Your task to perform on an android device: Add logitech g pro to the cart on bestbuy Image 0: 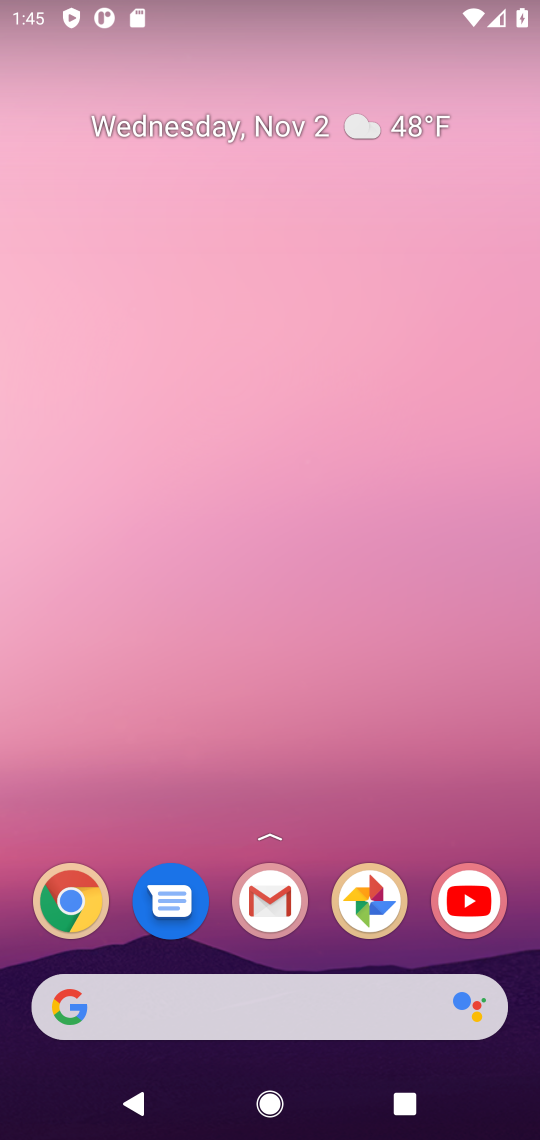
Step 0: drag from (336, 911) to (352, 132)
Your task to perform on an android device: Add logitech g pro to the cart on bestbuy Image 1: 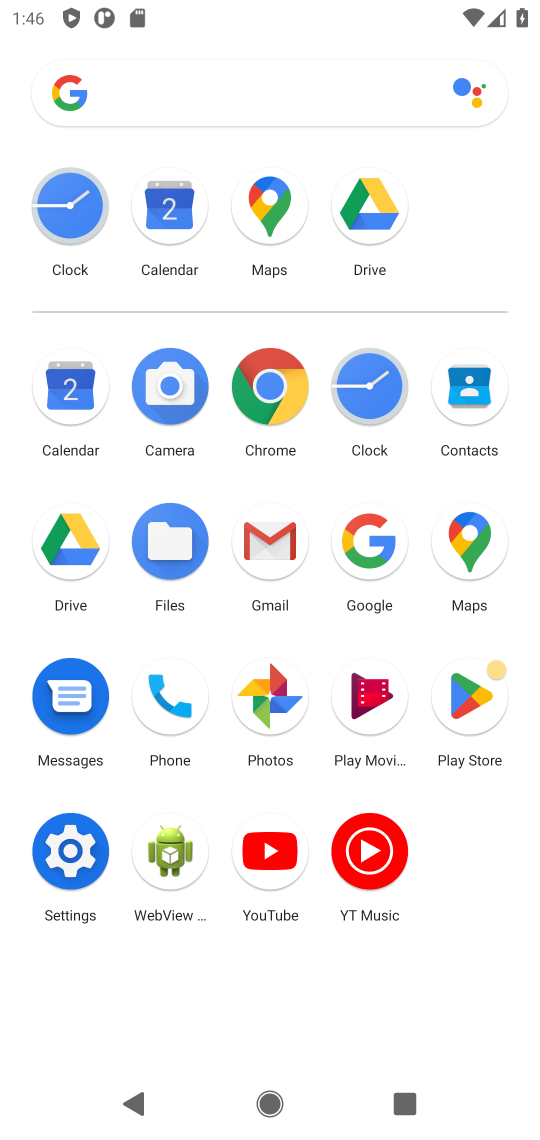
Step 1: click (267, 391)
Your task to perform on an android device: Add logitech g pro to the cart on bestbuy Image 2: 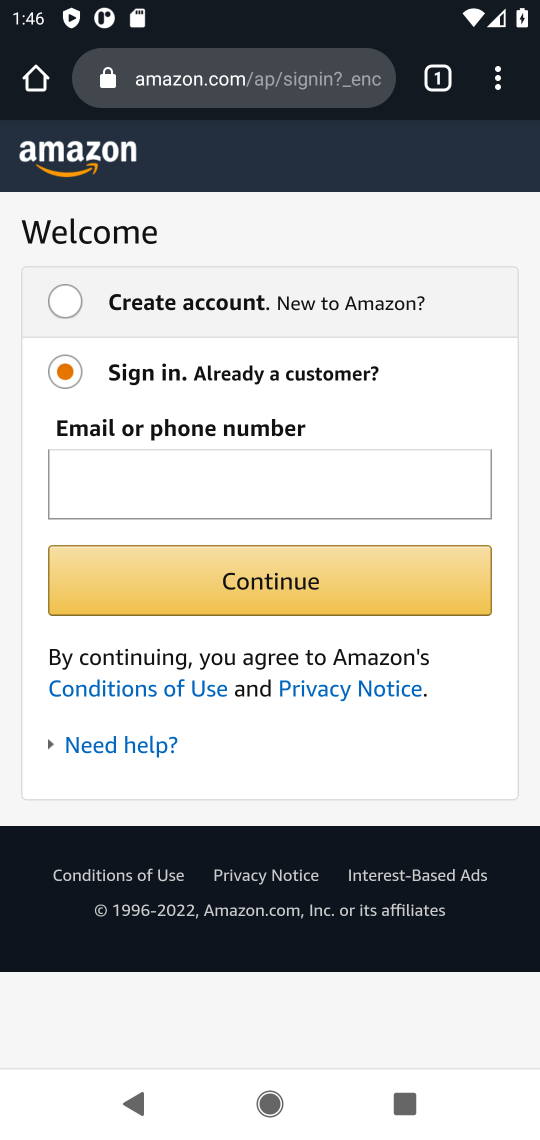
Step 2: click (284, 88)
Your task to perform on an android device: Add logitech g pro to the cart on bestbuy Image 3: 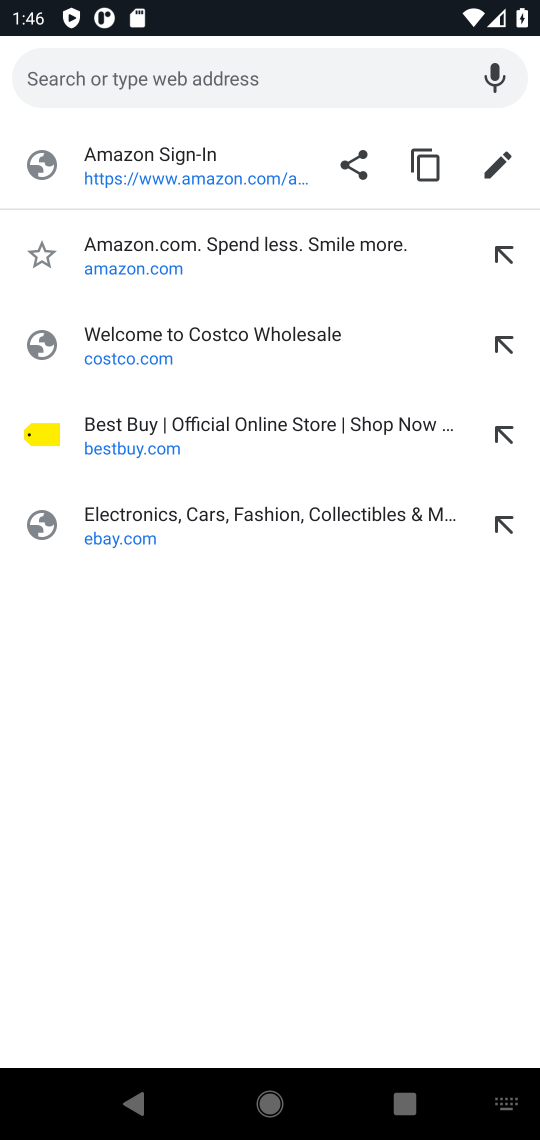
Step 3: type "bestbuy.com"
Your task to perform on an android device: Add logitech g pro to the cart on bestbuy Image 4: 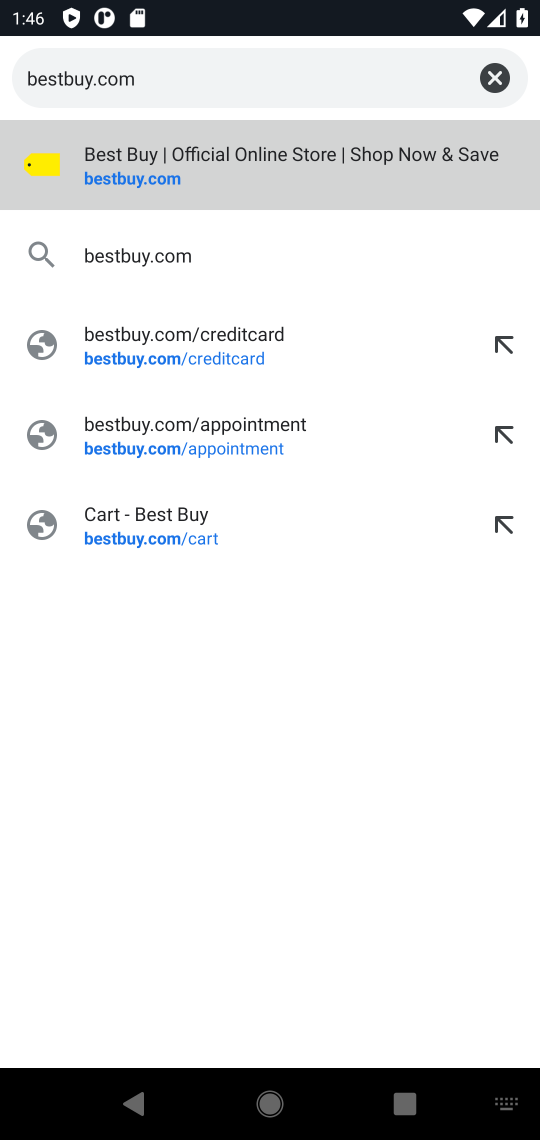
Step 4: press enter
Your task to perform on an android device: Add logitech g pro to the cart on bestbuy Image 5: 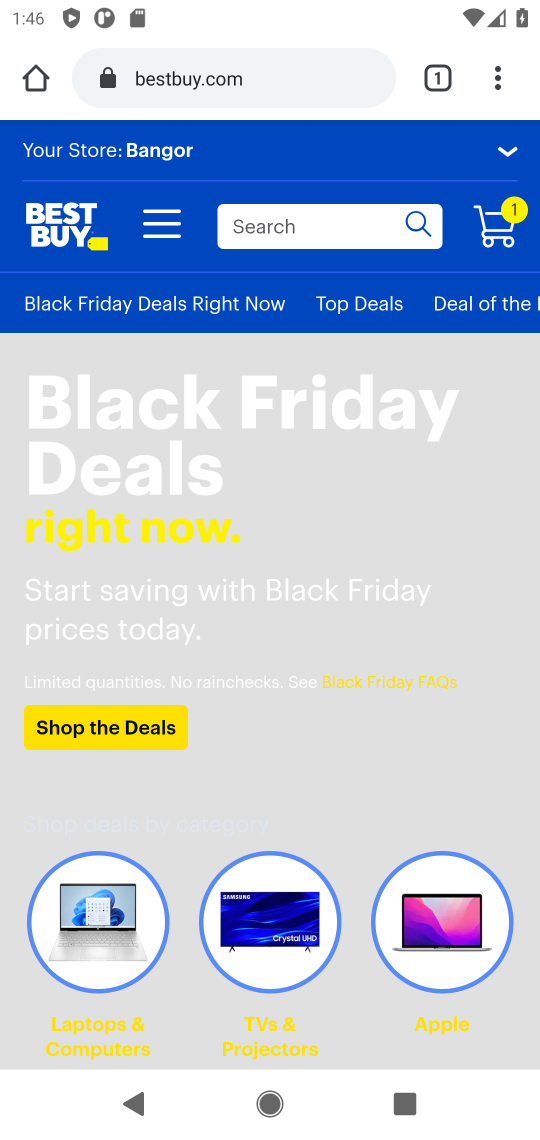
Step 5: click (328, 236)
Your task to perform on an android device: Add logitech g pro to the cart on bestbuy Image 6: 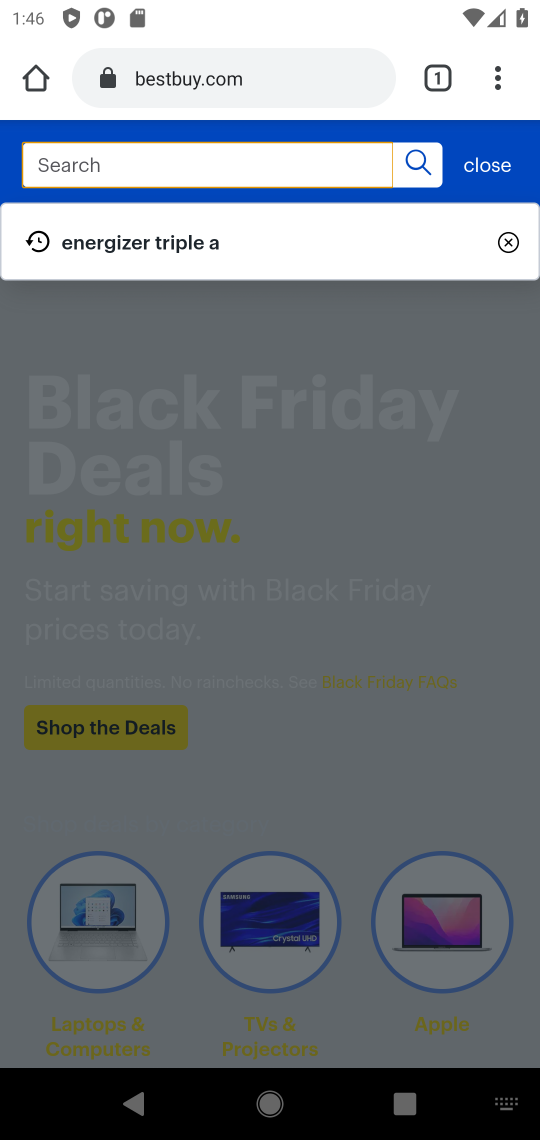
Step 6: type "logitech g pro"
Your task to perform on an android device: Add logitech g pro to the cart on bestbuy Image 7: 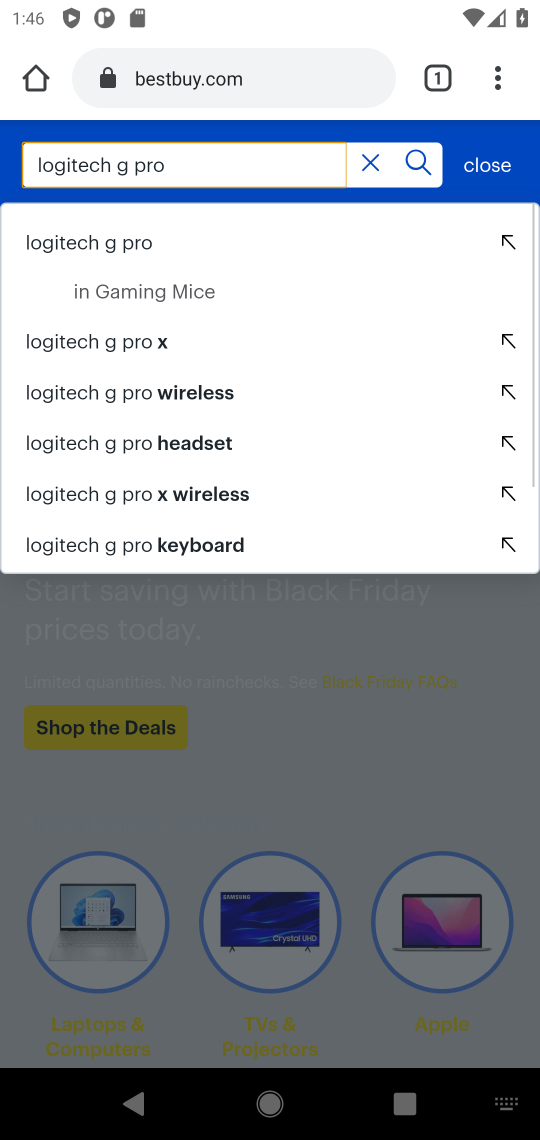
Step 7: press enter
Your task to perform on an android device: Add logitech g pro to the cart on bestbuy Image 8: 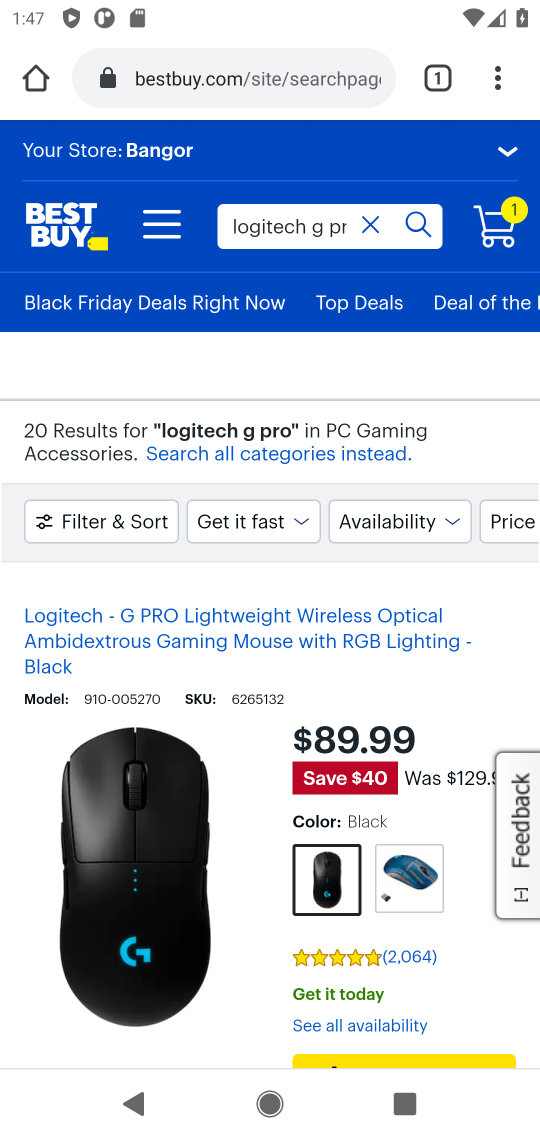
Step 8: click (281, 629)
Your task to perform on an android device: Add logitech g pro to the cart on bestbuy Image 9: 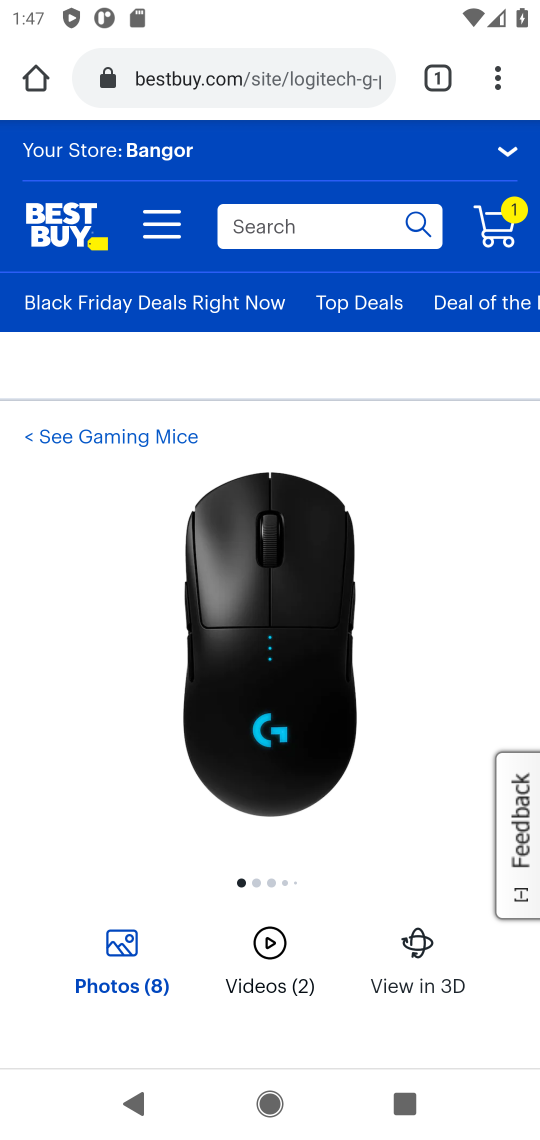
Step 9: drag from (327, 661) to (434, 128)
Your task to perform on an android device: Add logitech g pro to the cart on bestbuy Image 10: 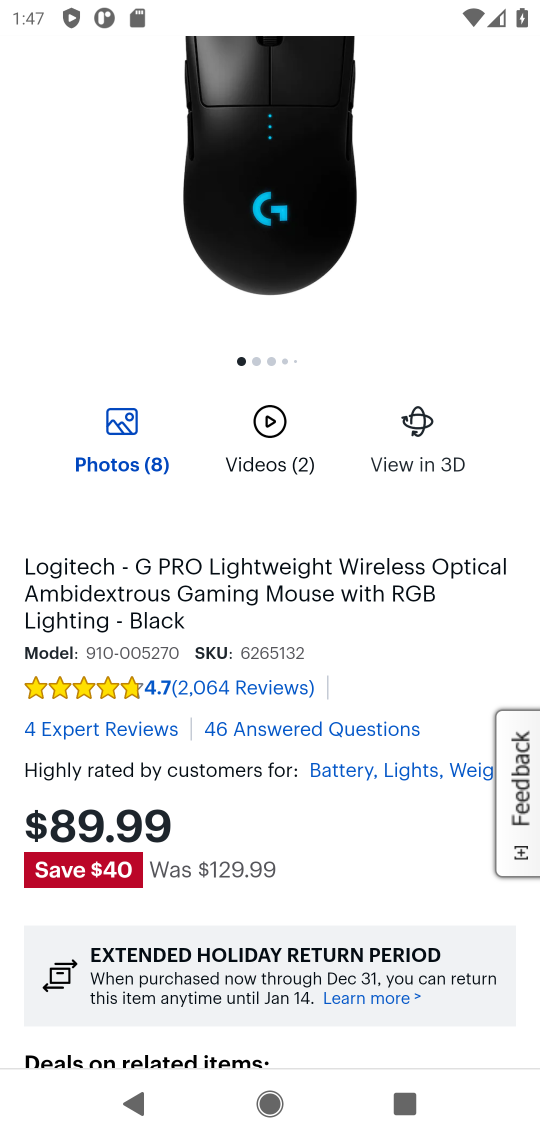
Step 10: drag from (195, 849) to (389, 228)
Your task to perform on an android device: Add logitech g pro to the cart on bestbuy Image 11: 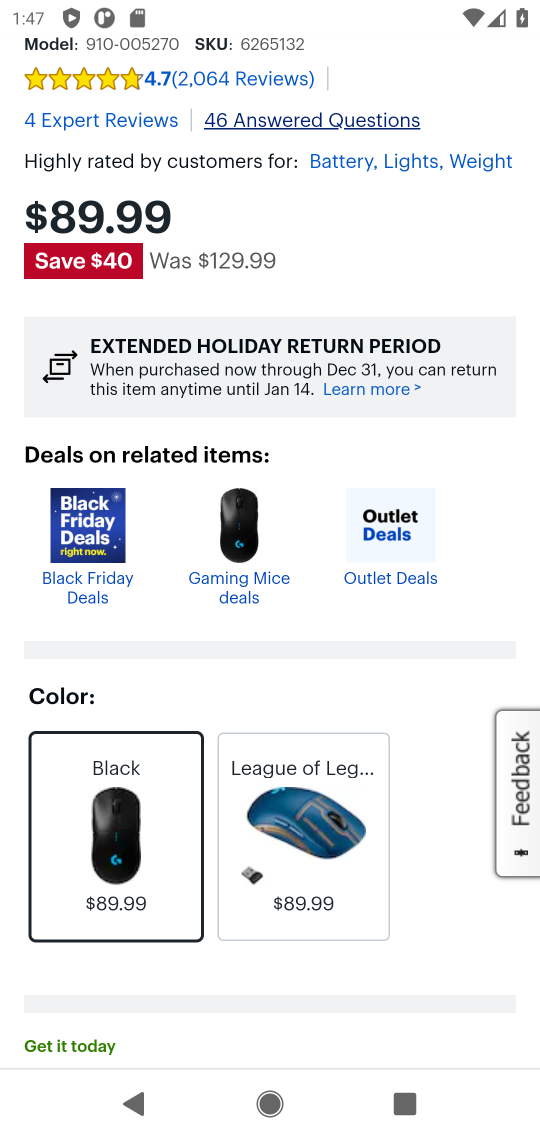
Step 11: drag from (282, 814) to (393, 168)
Your task to perform on an android device: Add logitech g pro to the cart on bestbuy Image 12: 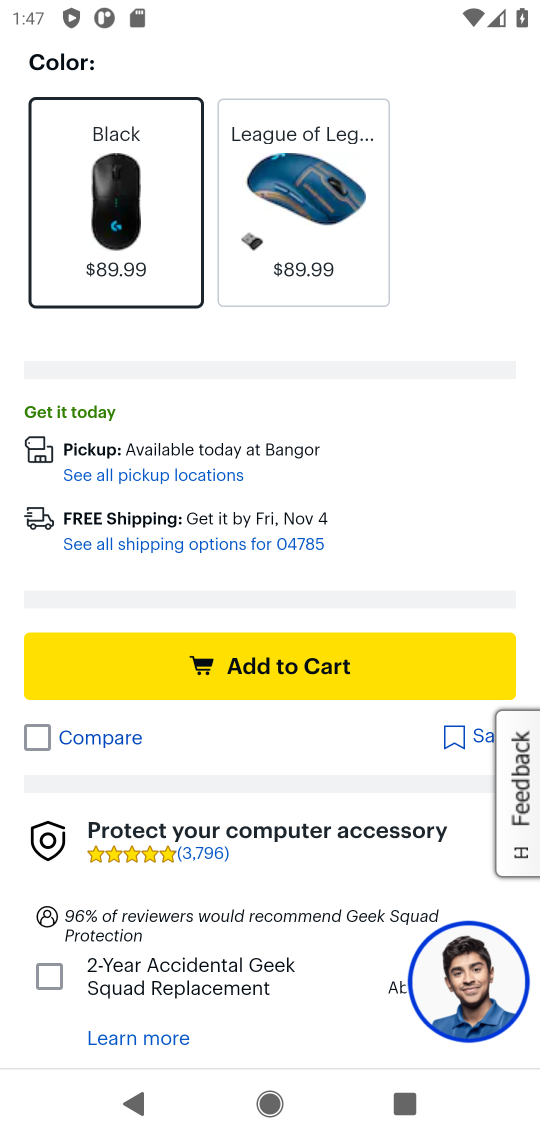
Step 12: click (302, 661)
Your task to perform on an android device: Add logitech g pro to the cart on bestbuy Image 13: 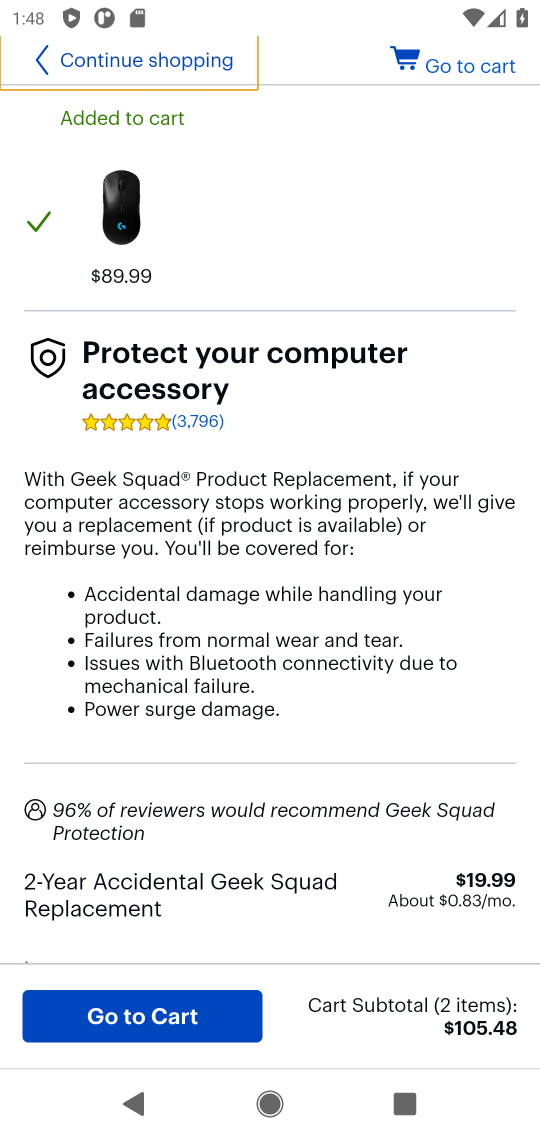
Step 13: task complete